Your task to perform on an android device: turn off translation in the chrome app Image 0: 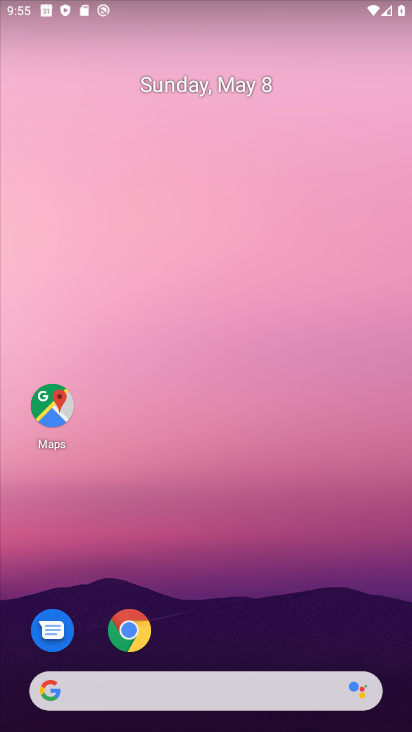
Step 0: click (134, 630)
Your task to perform on an android device: turn off translation in the chrome app Image 1: 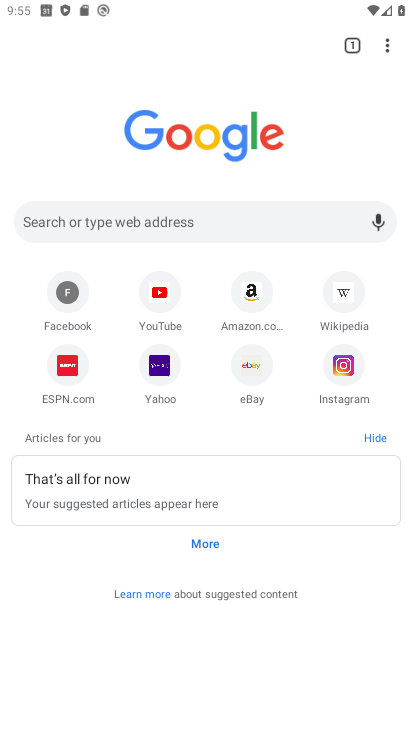
Step 1: click (387, 50)
Your task to perform on an android device: turn off translation in the chrome app Image 2: 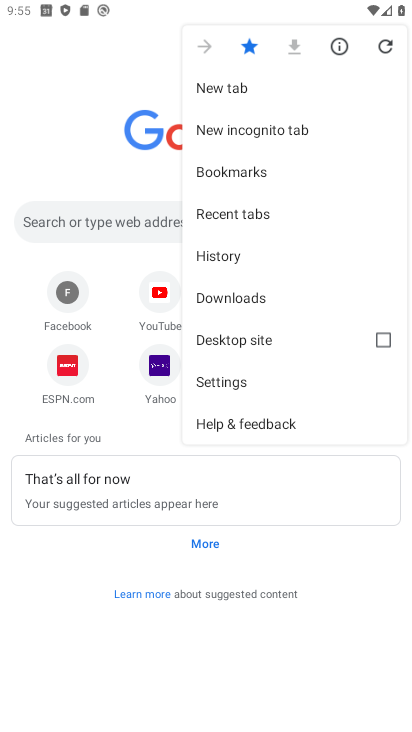
Step 2: click (232, 377)
Your task to perform on an android device: turn off translation in the chrome app Image 3: 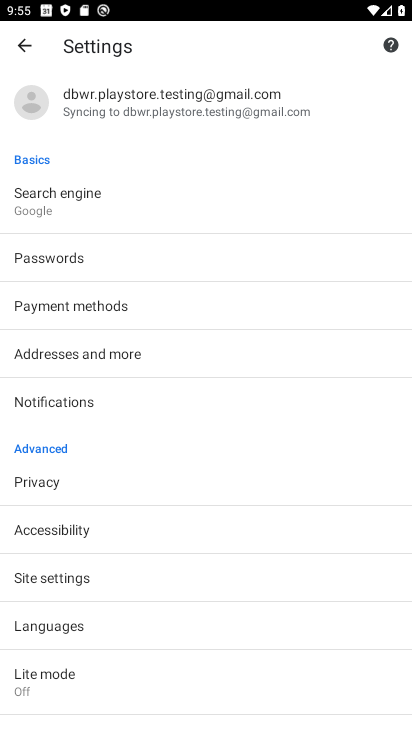
Step 3: drag from (108, 663) to (114, 556)
Your task to perform on an android device: turn off translation in the chrome app Image 4: 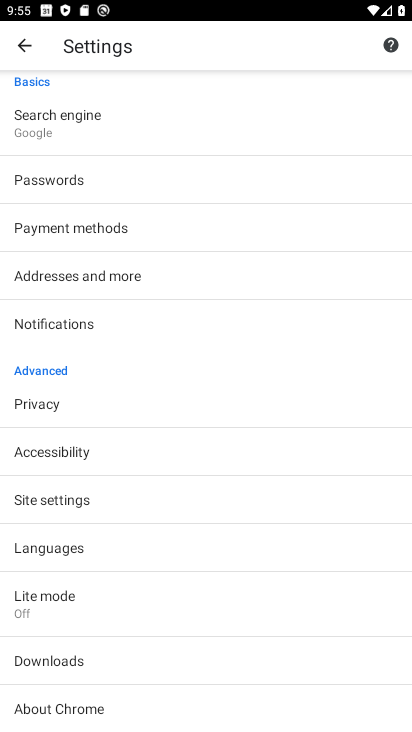
Step 4: click (95, 549)
Your task to perform on an android device: turn off translation in the chrome app Image 5: 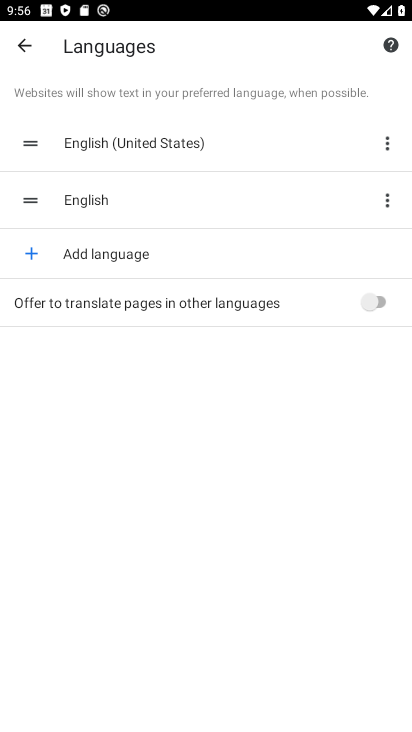
Step 5: task complete